Your task to perform on an android device: Check the news Image 0: 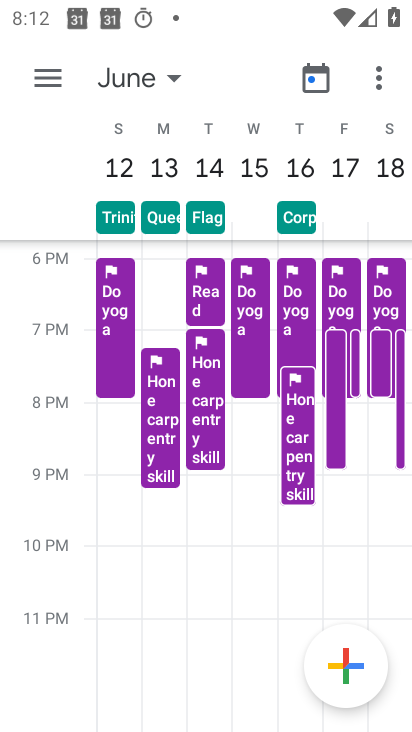
Step 0: press home button
Your task to perform on an android device: Check the news Image 1: 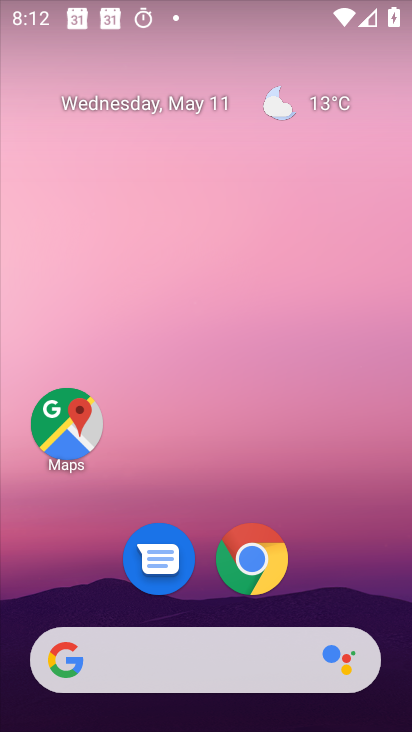
Step 1: click (183, 649)
Your task to perform on an android device: Check the news Image 2: 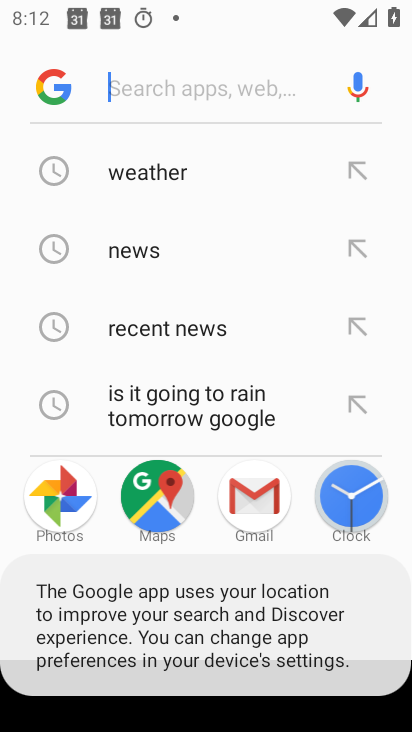
Step 2: click (177, 245)
Your task to perform on an android device: Check the news Image 3: 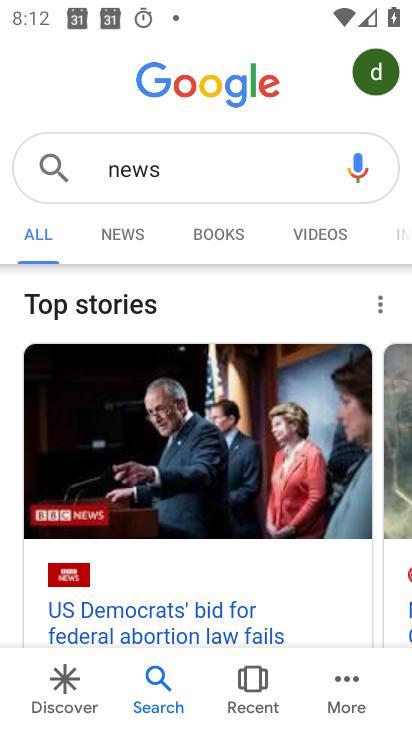
Step 3: click (129, 224)
Your task to perform on an android device: Check the news Image 4: 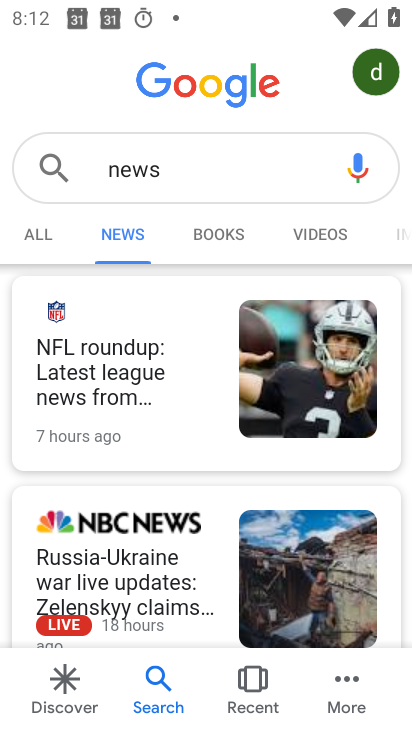
Step 4: task complete